Your task to perform on an android device: Is it going to rain tomorrow? Image 0: 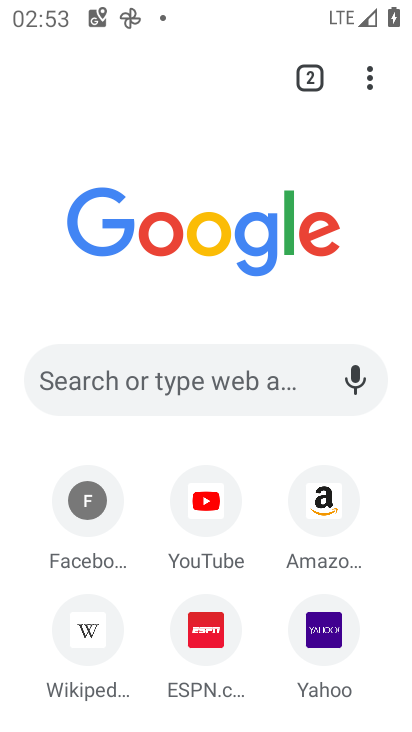
Step 0: press home button
Your task to perform on an android device: Is it going to rain tomorrow? Image 1: 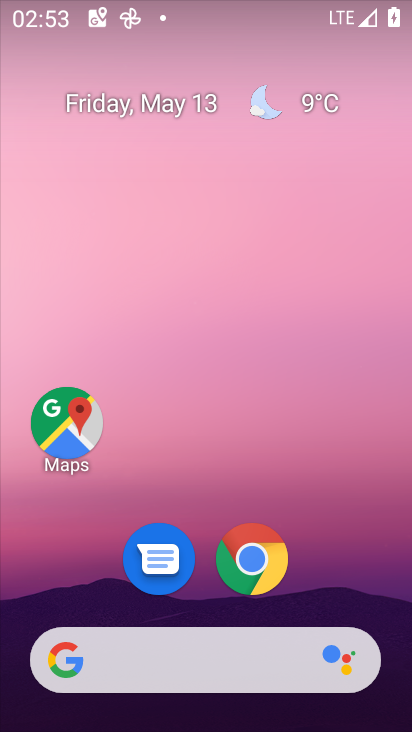
Step 1: click (311, 105)
Your task to perform on an android device: Is it going to rain tomorrow? Image 2: 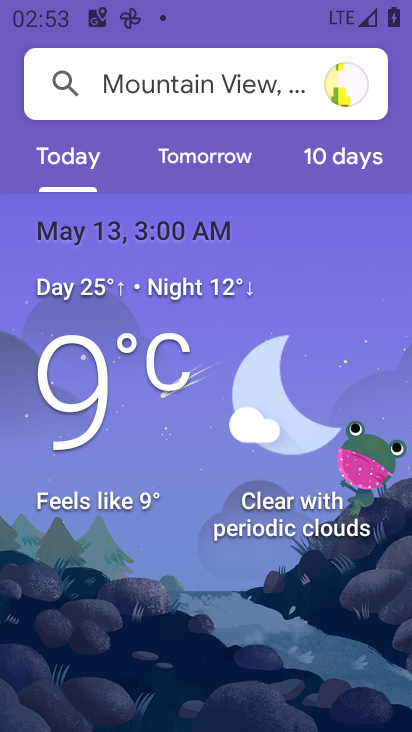
Step 2: click (208, 155)
Your task to perform on an android device: Is it going to rain tomorrow? Image 3: 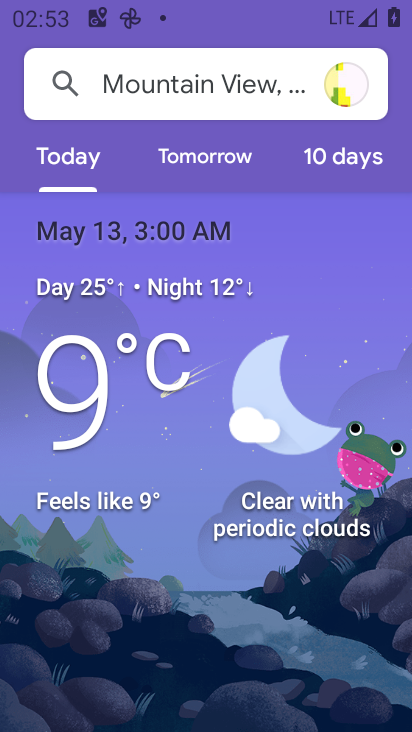
Step 3: click (211, 153)
Your task to perform on an android device: Is it going to rain tomorrow? Image 4: 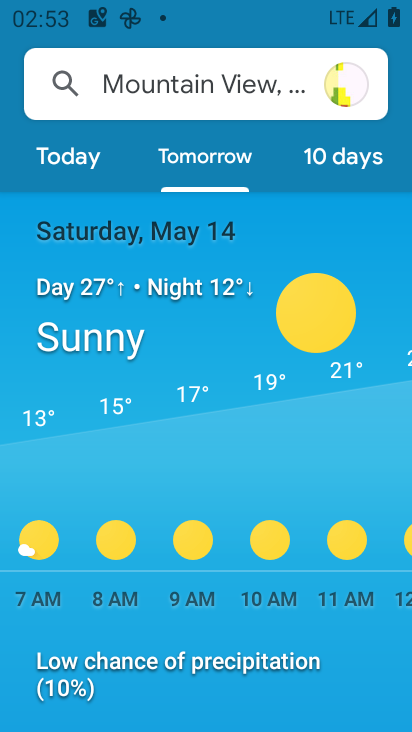
Step 4: task complete